Your task to perform on an android device: turn off translation in the chrome app Image 0: 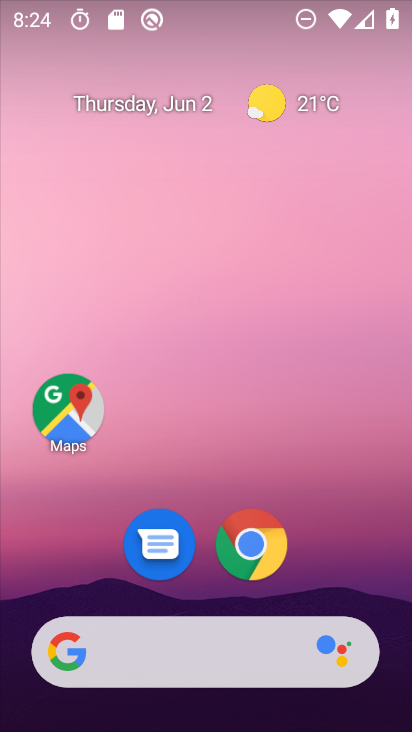
Step 0: drag from (383, 572) to (394, 229)
Your task to perform on an android device: turn off translation in the chrome app Image 1: 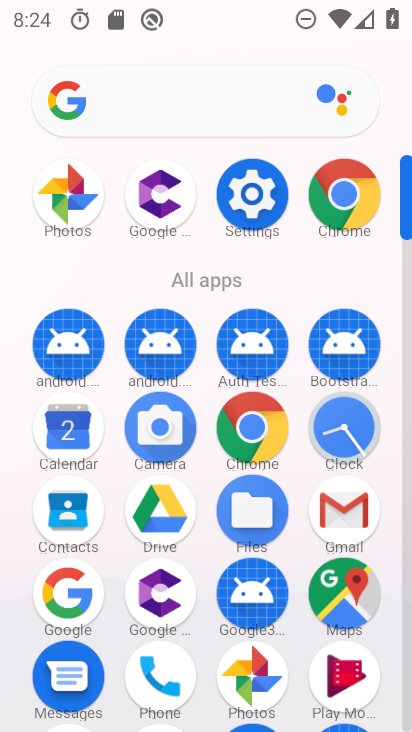
Step 1: click (344, 187)
Your task to perform on an android device: turn off translation in the chrome app Image 2: 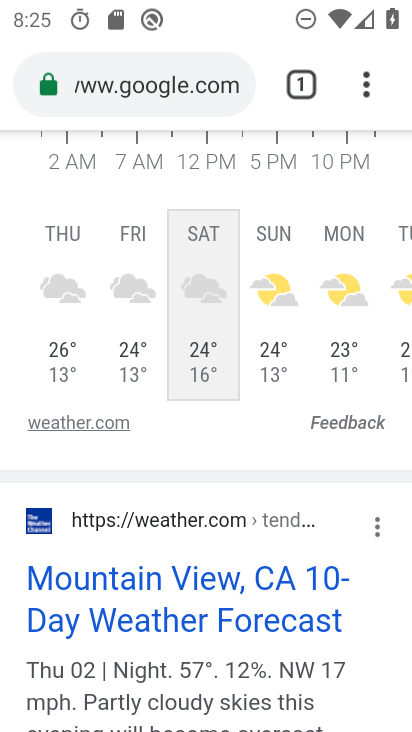
Step 2: click (374, 87)
Your task to perform on an android device: turn off translation in the chrome app Image 3: 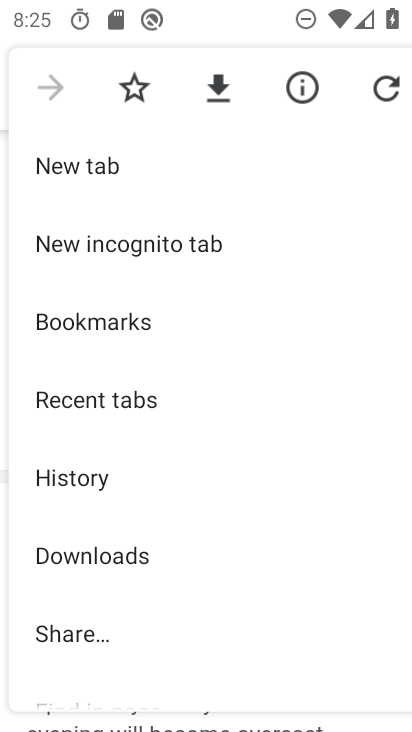
Step 3: drag from (183, 573) to (169, 168)
Your task to perform on an android device: turn off translation in the chrome app Image 4: 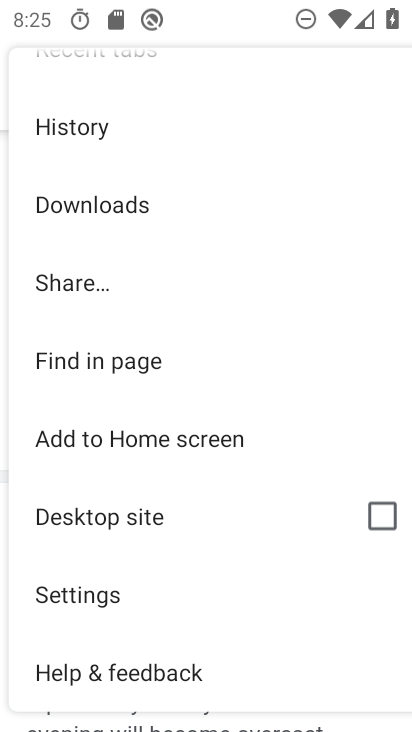
Step 4: click (157, 597)
Your task to perform on an android device: turn off translation in the chrome app Image 5: 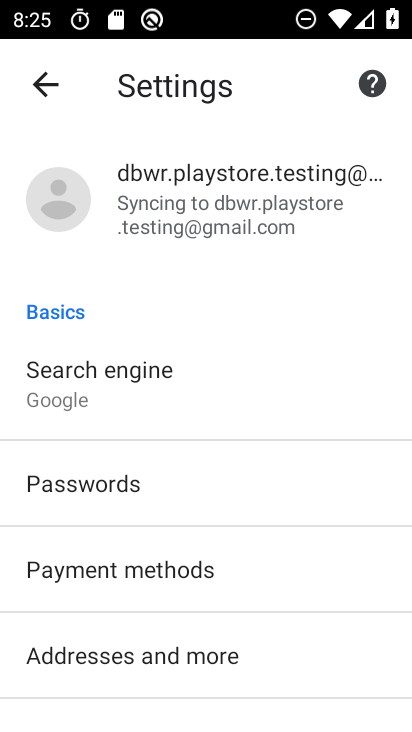
Step 5: drag from (219, 649) to (263, 53)
Your task to perform on an android device: turn off translation in the chrome app Image 6: 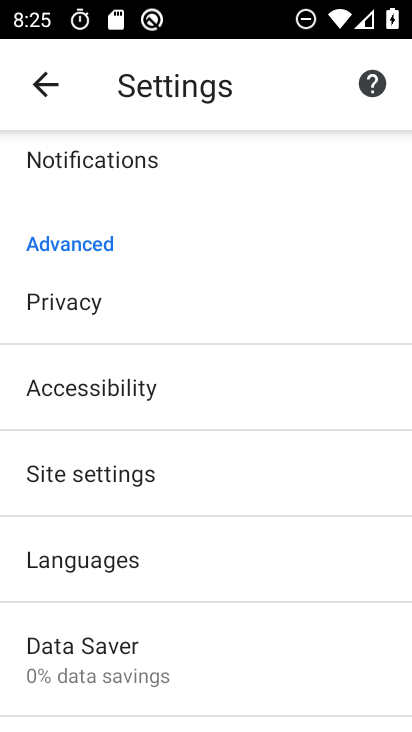
Step 6: click (217, 553)
Your task to perform on an android device: turn off translation in the chrome app Image 7: 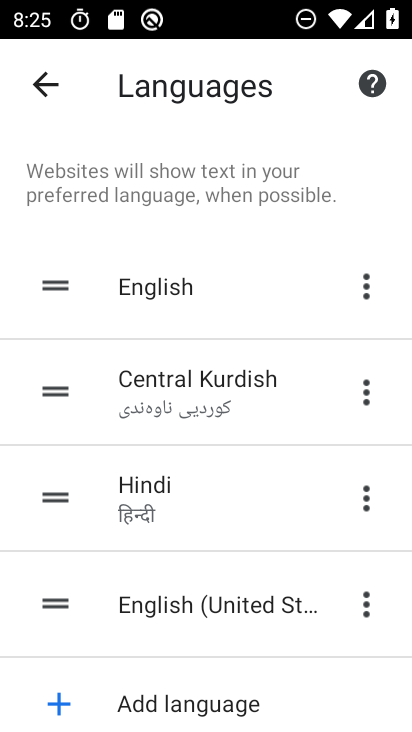
Step 7: task complete